Your task to perform on an android device: open chrome and create a bookmark for the current page Image 0: 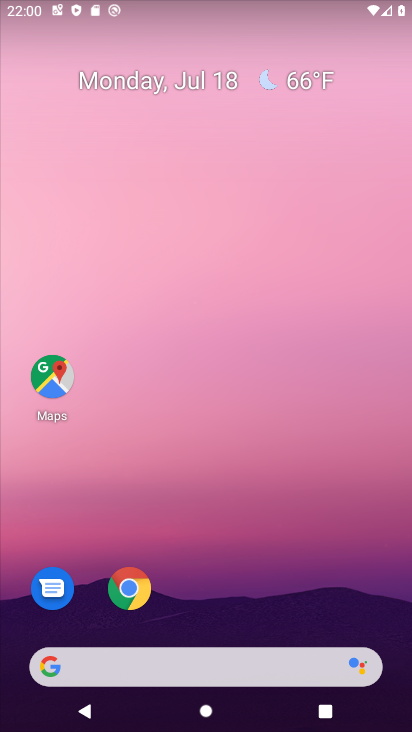
Step 0: click (138, 590)
Your task to perform on an android device: open chrome and create a bookmark for the current page Image 1: 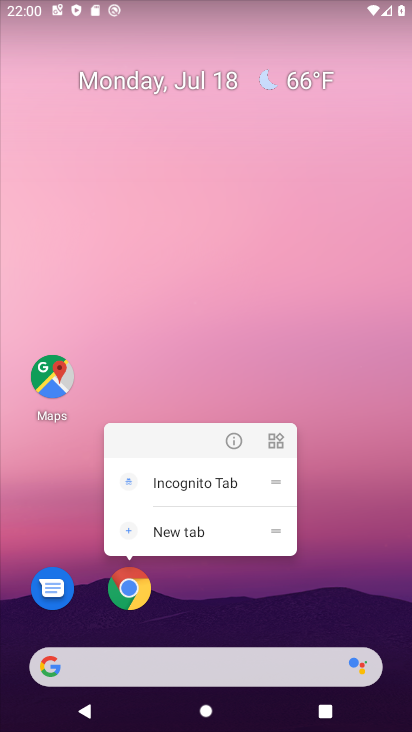
Step 1: click (135, 590)
Your task to perform on an android device: open chrome and create a bookmark for the current page Image 2: 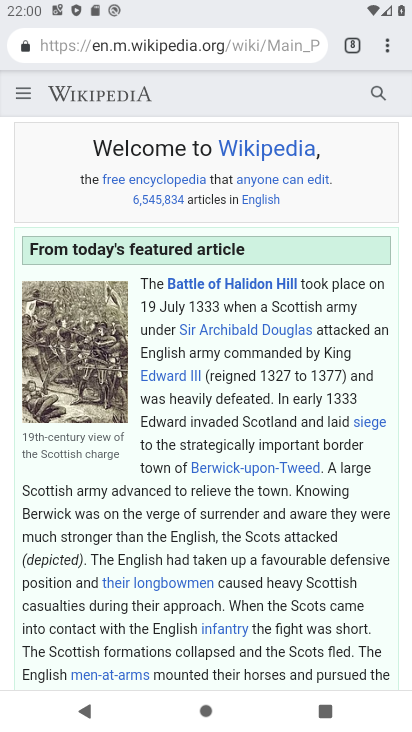
Step 2: click (385, 60)
Your task to perform on an android device: open chrome and create a bookmark for the current page Image 3: 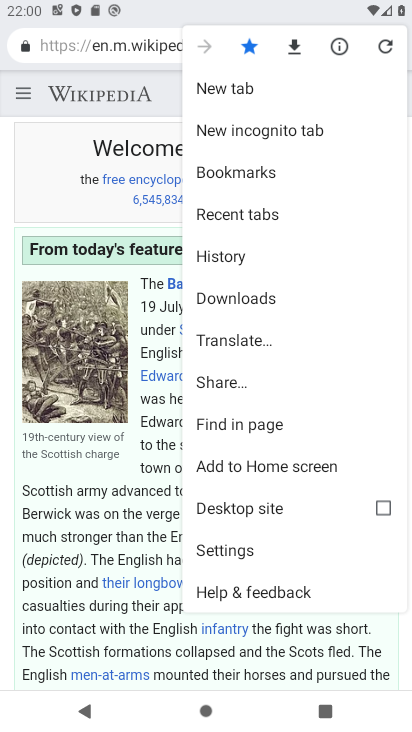
Step 3: task complete